Your task to perform on an android device: Open calendar and show me the fourth week of next month Image 0: 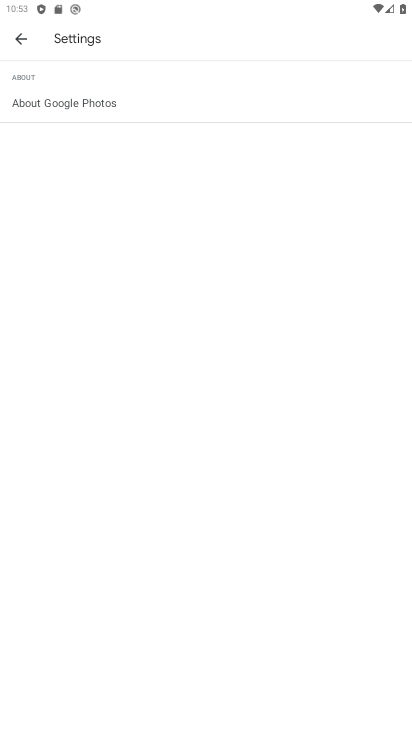
Step 0: press home button
Your task to perform on an android device: Open calendar and show me the fourth week of next month Image 1: 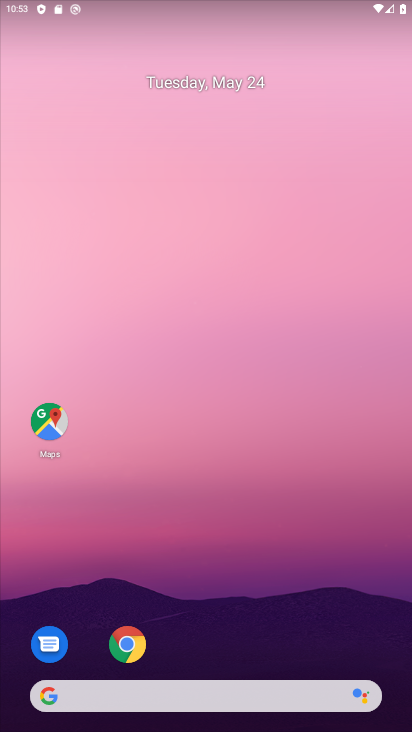
Step 1: drag from (238, 636) to (286, 51)
Your task to perform on an android device: Open calendar and show me the fourth week of next month Image 2: 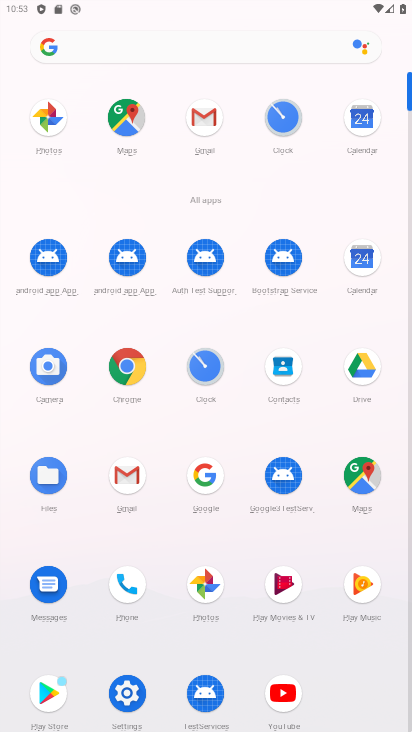
Step 2: click (364, 119)
Your task to perform on an android device: Open calendar and show me the fourth week of next month Image 3: 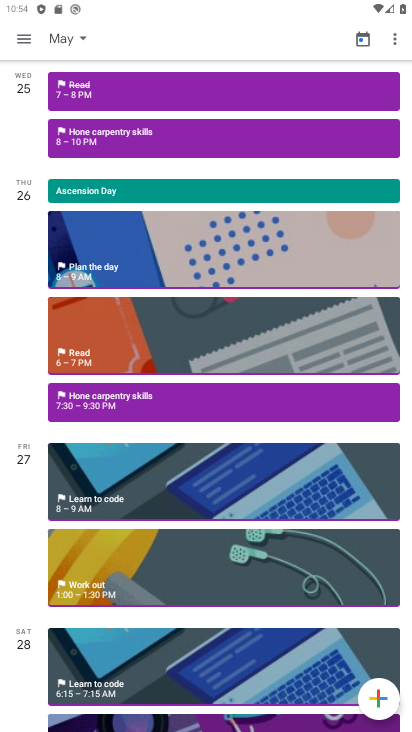
Step 3: click (364, 44)
Your task to perform on an android device: Open calendar and show me the fourth week of next month Image 4: 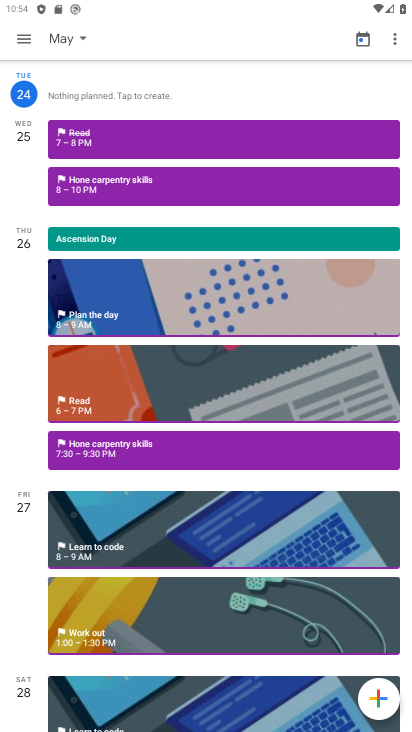
Step 4: click (83, 34)
Your task to perform on an android device: Open calendar and show me the fourth week of next month Image 5: 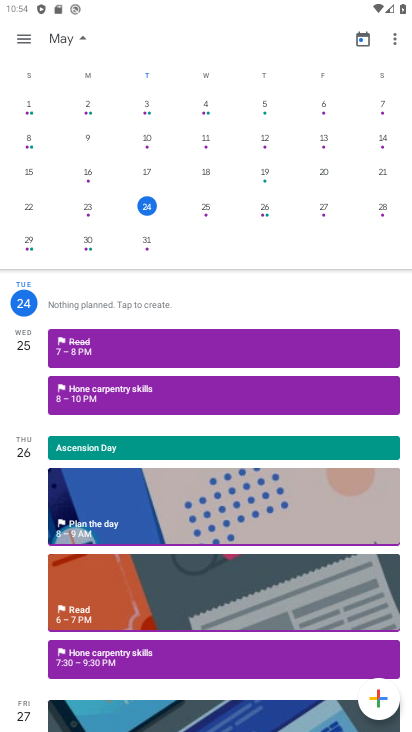
Step 5: drag from (354, 193) to (0, 216)
Your task to perform on an android device: Open calendar and show me the fourth week of next month Image 6: 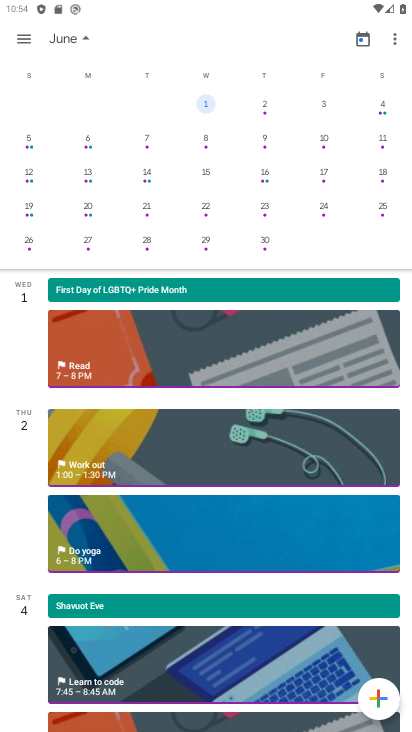
Step 6: click (89, 231)
Your task to perform on an android device: Open calendar and show me the fourth week of next month Image 7: 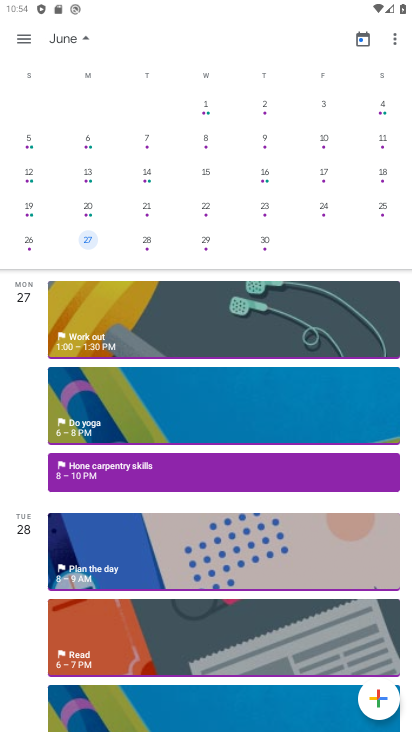
Step 7: click (20, 37)
Your task to perform on an android device: Open calendar and show me the fourth week of next month Image 8: 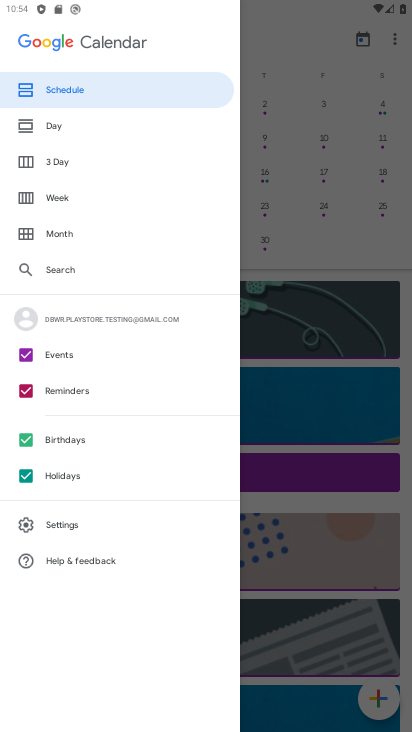
Step 8: click (66, 191)
Your task to perform on an android device: Open calendar and show me the fourth week of next month Image 9: 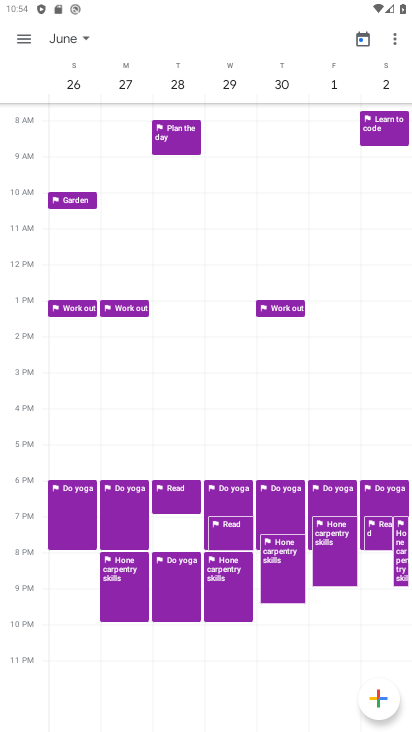
Step 9: task complete